Your task to perform on an android device: Clear all items from cart on newegg. Add "usb-b" to the cart on newegg Image 0: 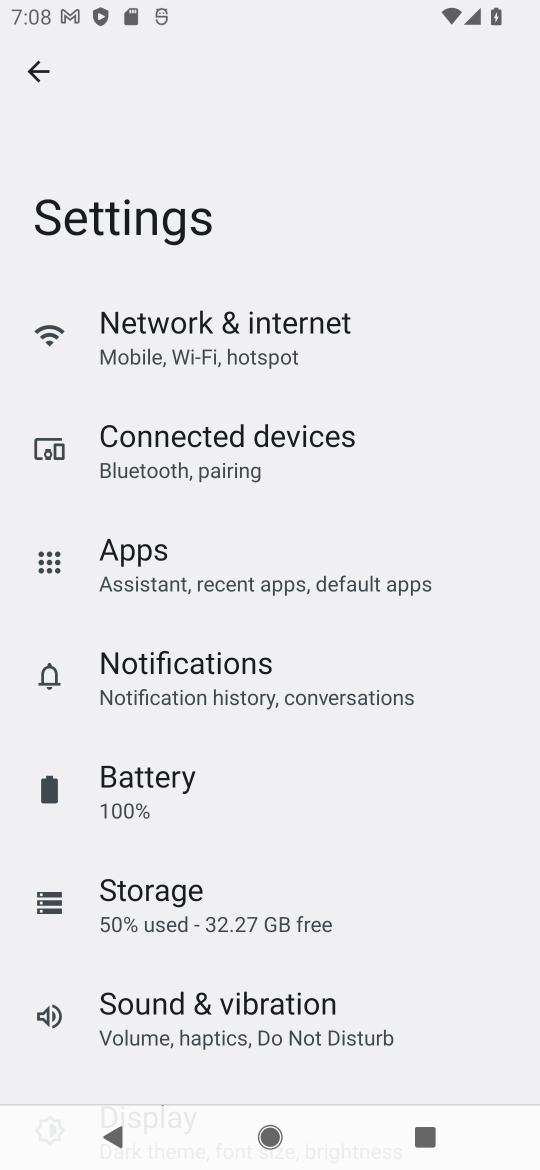
Step 0: press home button
Your task to perform on an android device: Clear all items from cart on newegg. Add "usb-b" to the cart on newegg Image 1: 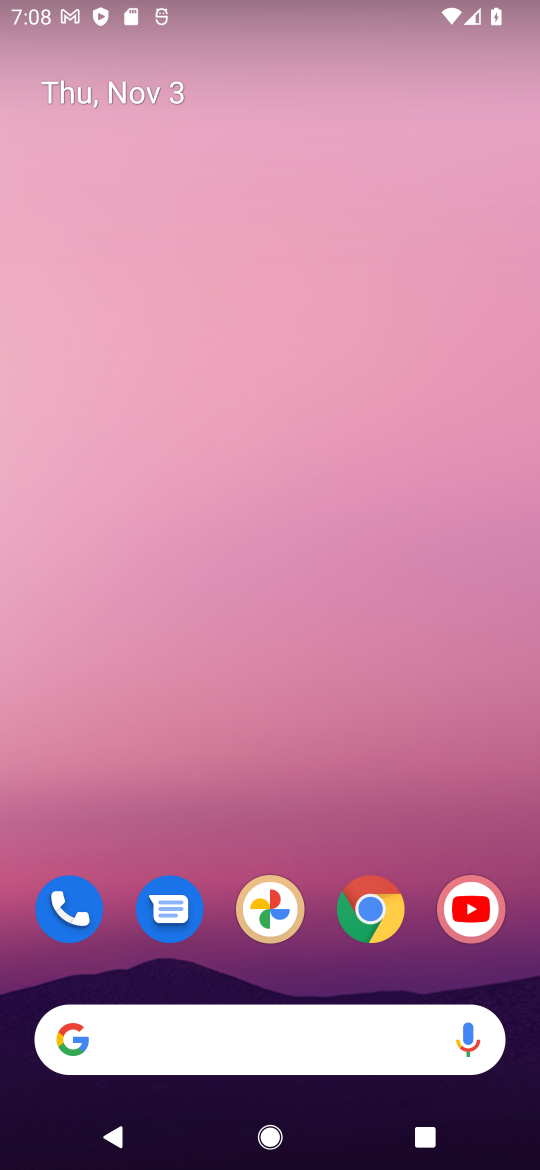
Step 1: drag from (255, 817) to (259, 290)
Your task to perform on an android device: Clear all items from cart on newegg. Add "usb-b" to the cart on newegg Image 2: 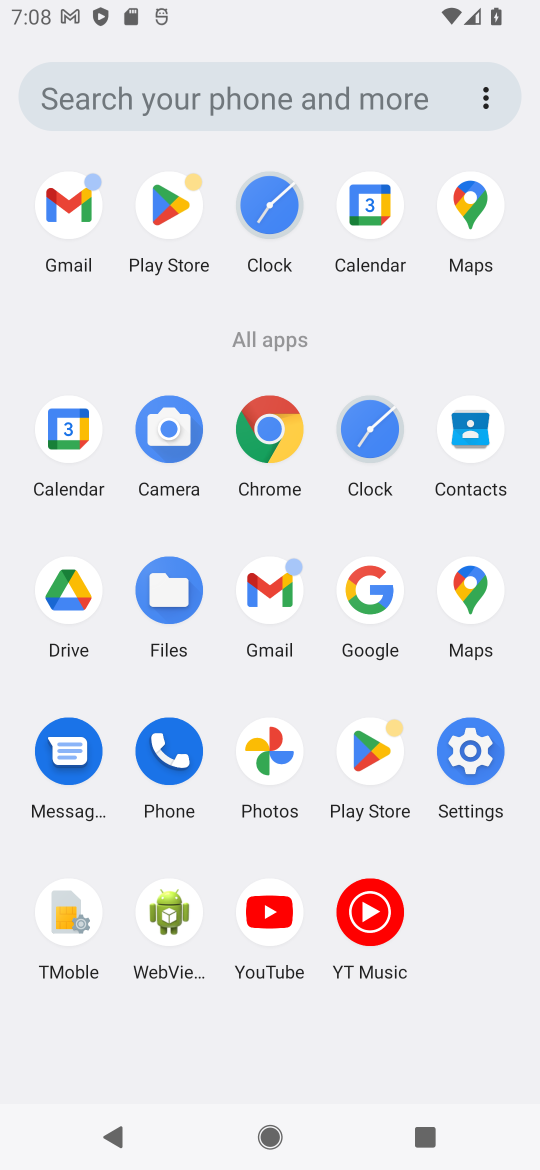
Step 2: click (360, 577)
Your task to perform on an android device: Clear all items from cart on newegg. Add "usb-b" to the cart on newegg Image 3: 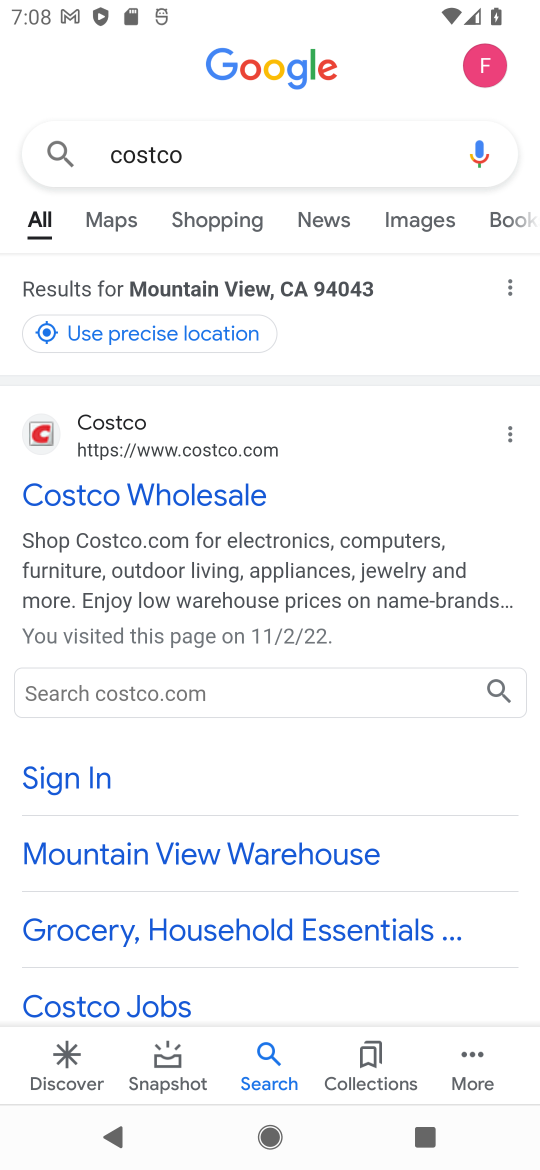
Step 3: click (265, 142)
Your task to perform on an android device: Clear all items from cart on newegg. Add "usb-b" to the cart on newegg Image 4: 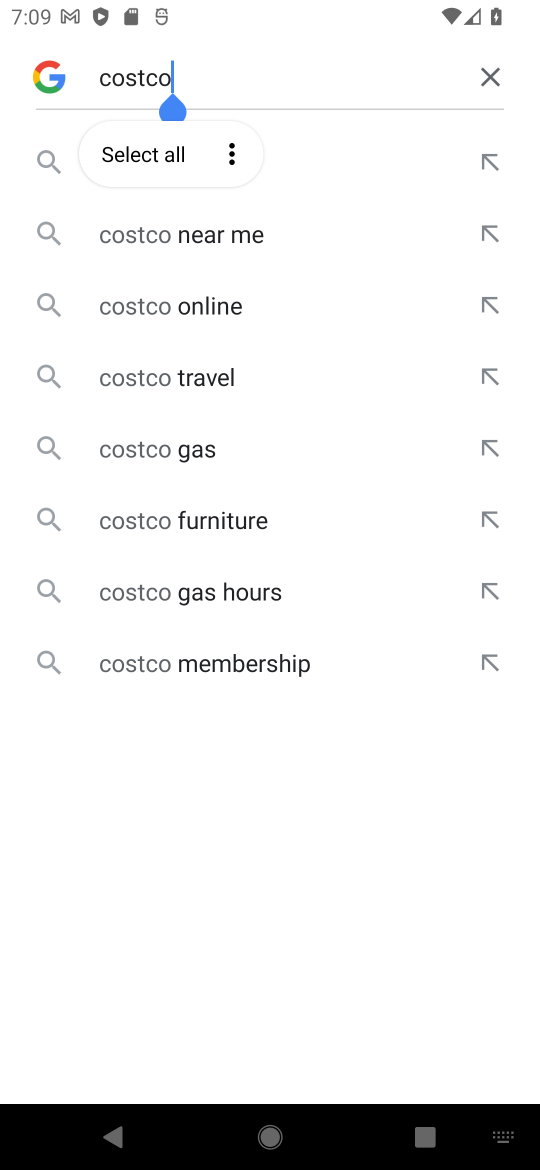
Step 4: click (507, 59)
Your task to perform on an android device: Clear all items from cart on newegg. Add "usb-b" to the cart on newegg Image 5: 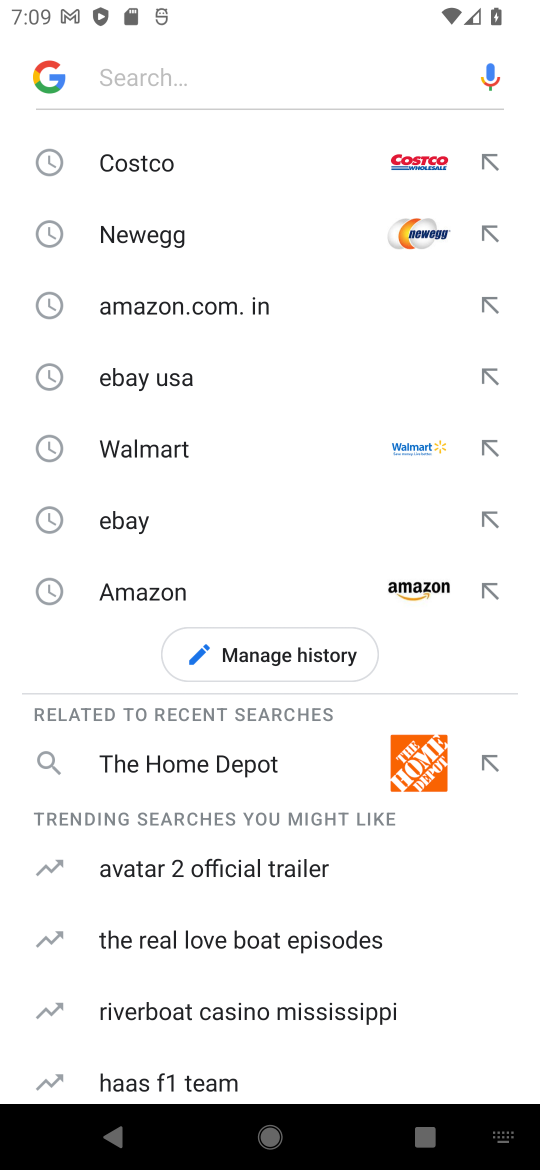
Step 5: click (215, 63)
Your task to perform on an android device: Clear all items from cart on newegg. Add "usb-b" to the cart on newegg Image 6: 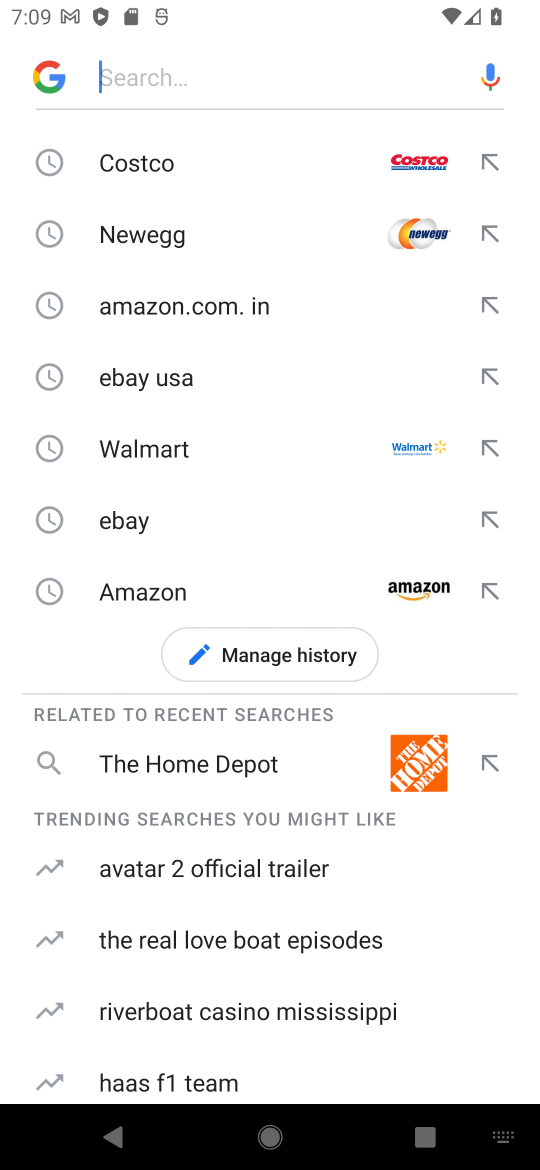
Step 6: click (215, 63)
Your task to perform on an android device: Clear all items from cart on newegg. Add "usb-b" to the cart on newegg Image 7: 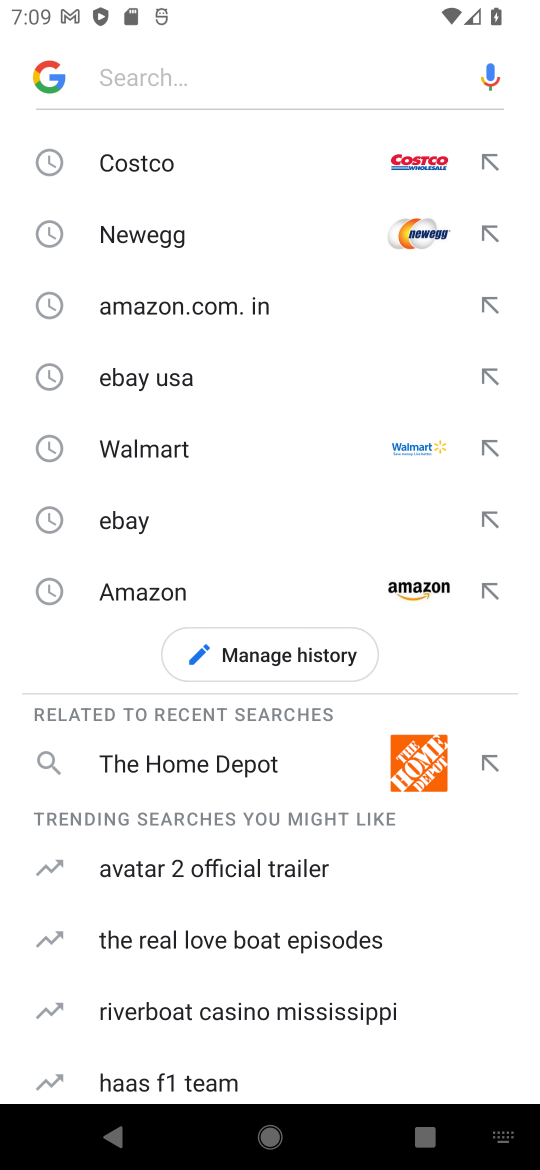
Step 7: type "newegg "
Your task to perform on an android device: Clear all items from cart on newegg. Add "usb-b" to the cart on newegg Image 8: 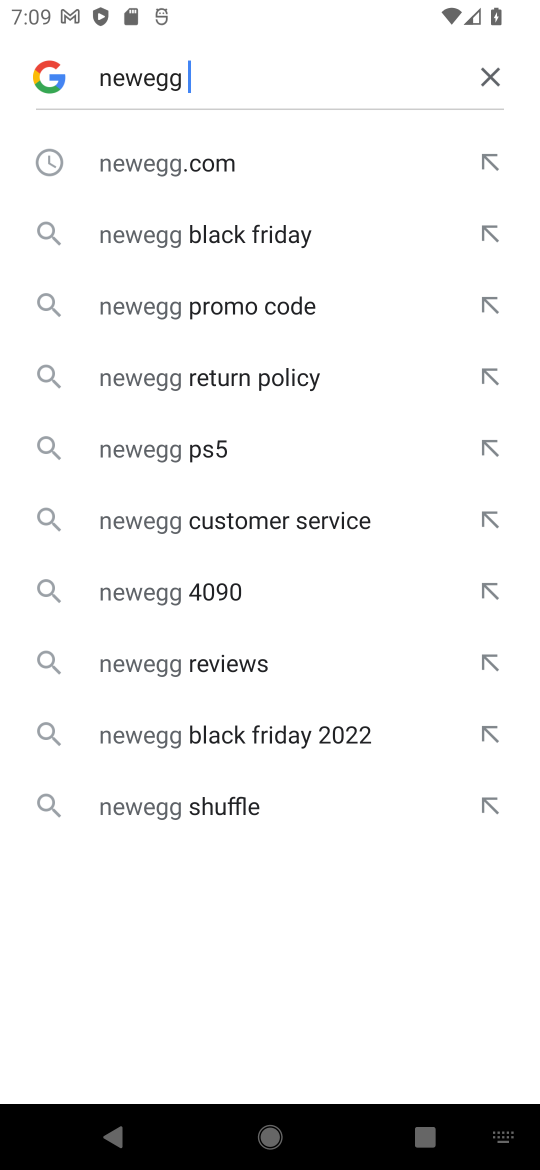
Step 8: click (159, 161)
Your task to perform on an android device: Clear all items from cart on newegg. Add "usb-b" to the cart on newegg Image 9: 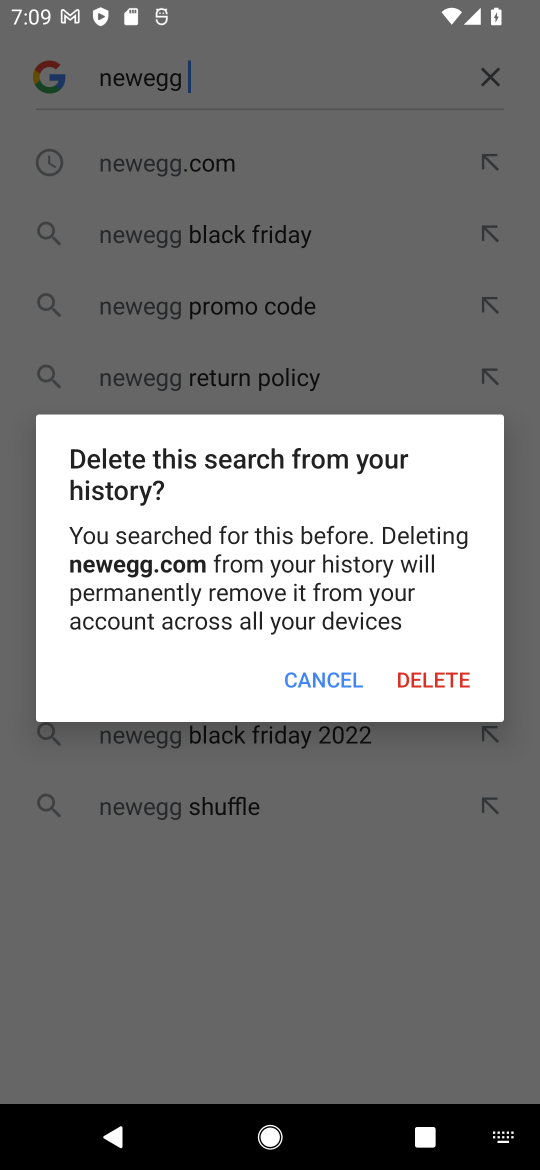
Step 9: click (302, 674)
Your task to perform on an android device: Clear all items from cart on newegg. Add "usb-b" to the cart on newegg Image 10: 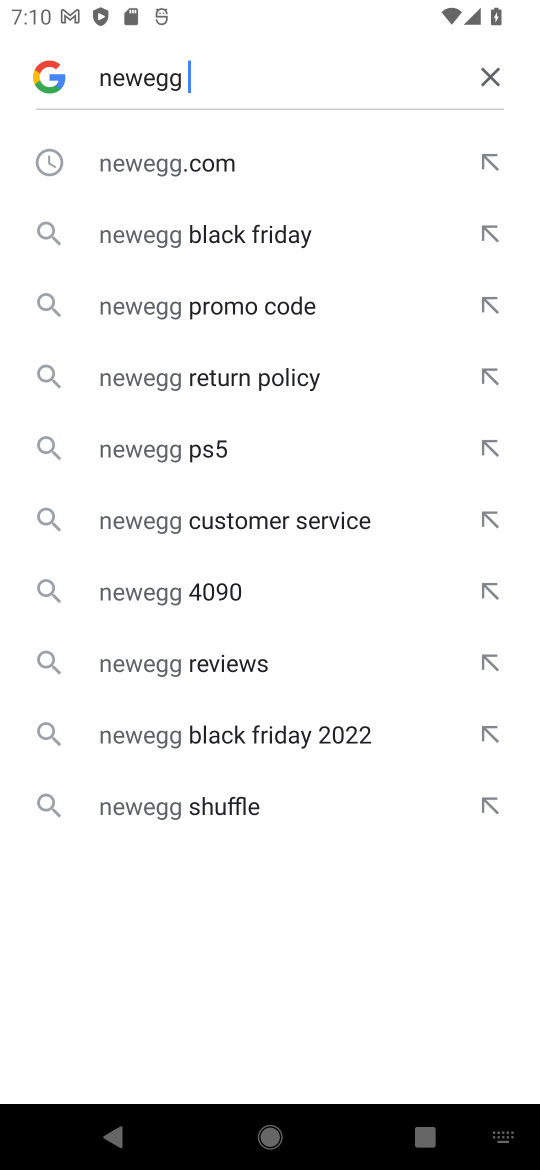
Step 10: click (497, 72)
Your task to perform on an android device: Clear all items from cart on newegg. Add "usb-b" to the cart on newegg Image 11: 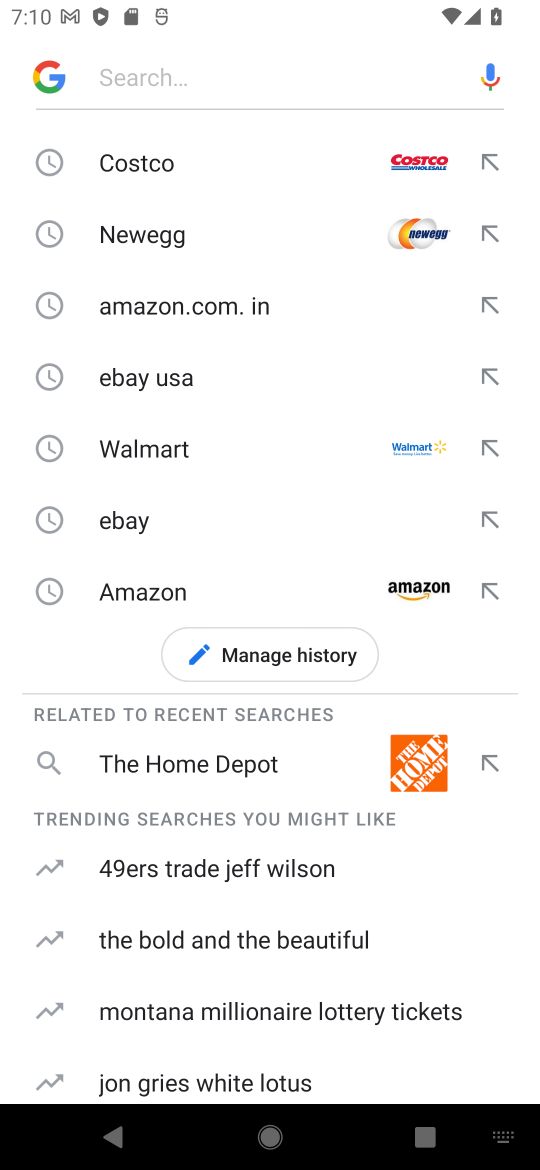
Step 11: click (205, 74)
Your task to perform on an android device: Clear all items from cart on newegg. Add "usb-b" to the cart on newegg Image 12: 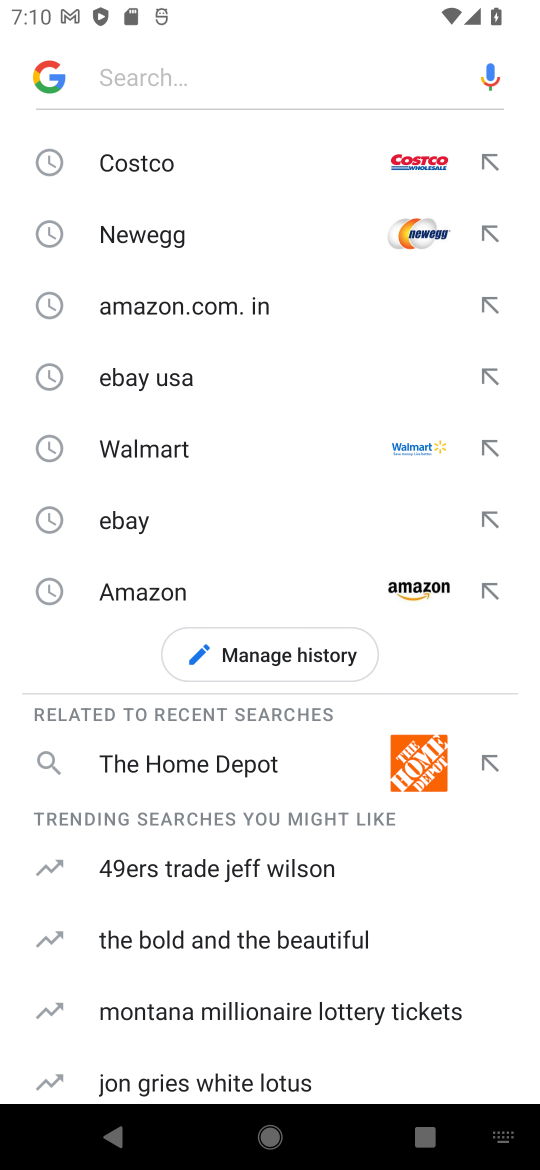
Step 12: type "newegg "
Your task to perform on an android device: Clear all items from cart on newegg. Add "usb-b" to the cart on newegg Image 13: 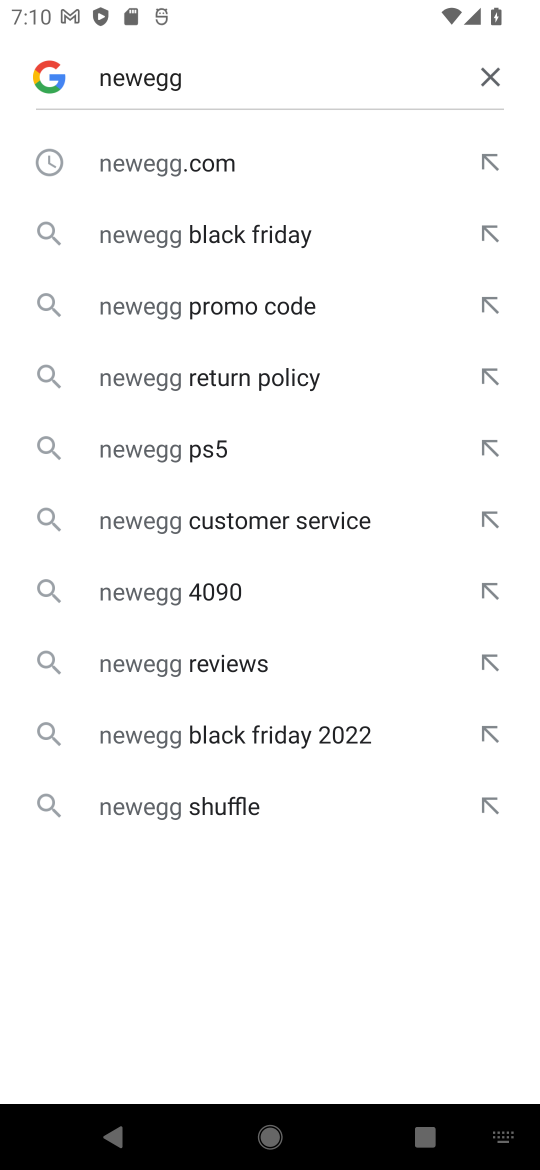
Step 13: click (170, 170)
Your task to perform on an android device: Clear all items from cart on newegg. Add "usb-b" to the cart on newegg Image 14: 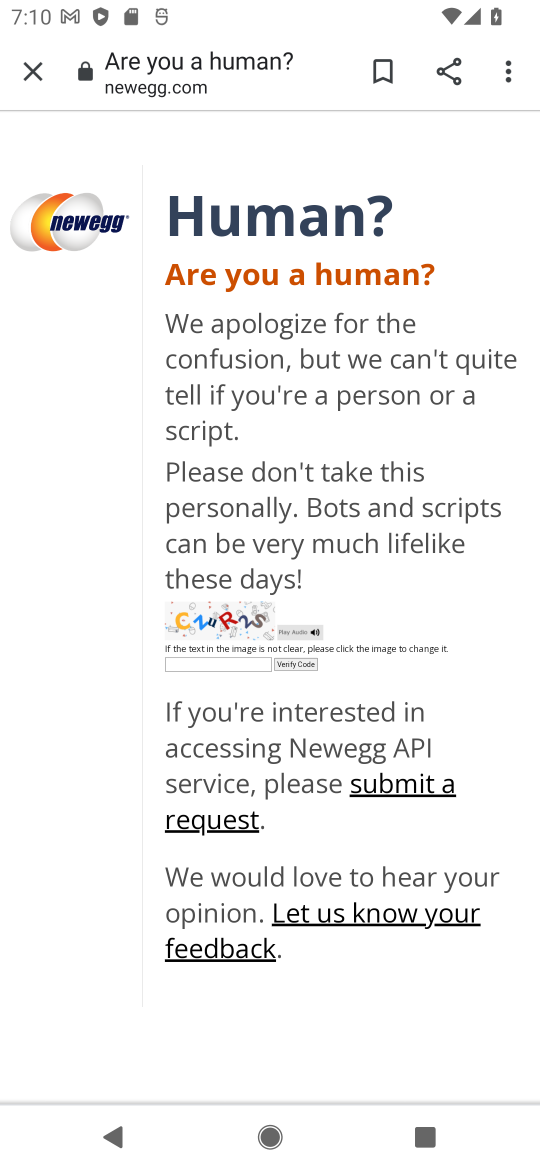
Step 14: click (25, 62)
Your task to perform on an android device: Clear all items from cart on newegg. Add "usb-b" to the cart on newegg Image 15: 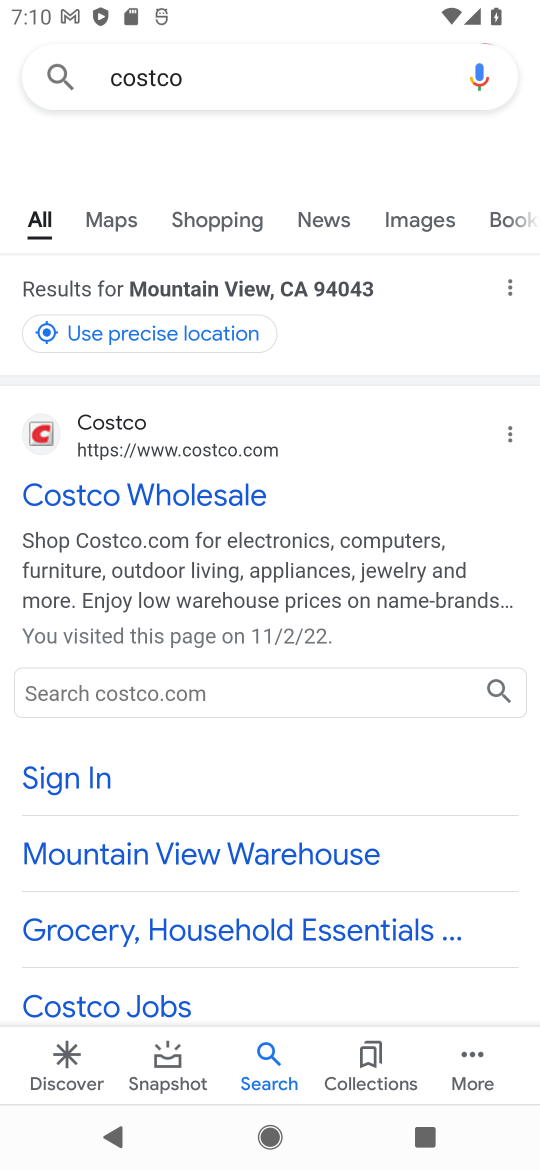
Step 15: click (269, 49)
Your task to perform on an android device: Clear all items from cart on newegg. Add "usb-b" to the cart on newegg Image 16: 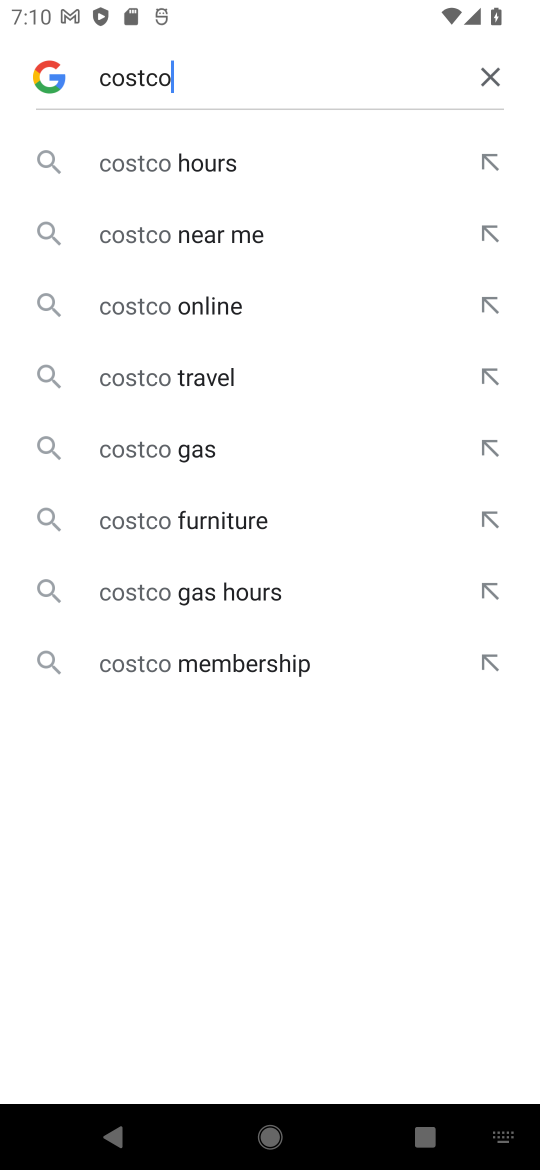
Step 16: click (469, 78)
Your task to perform on an android device: Clear all items from cart on newegg. Add "usb-b" to the cart on newegg Image 17: 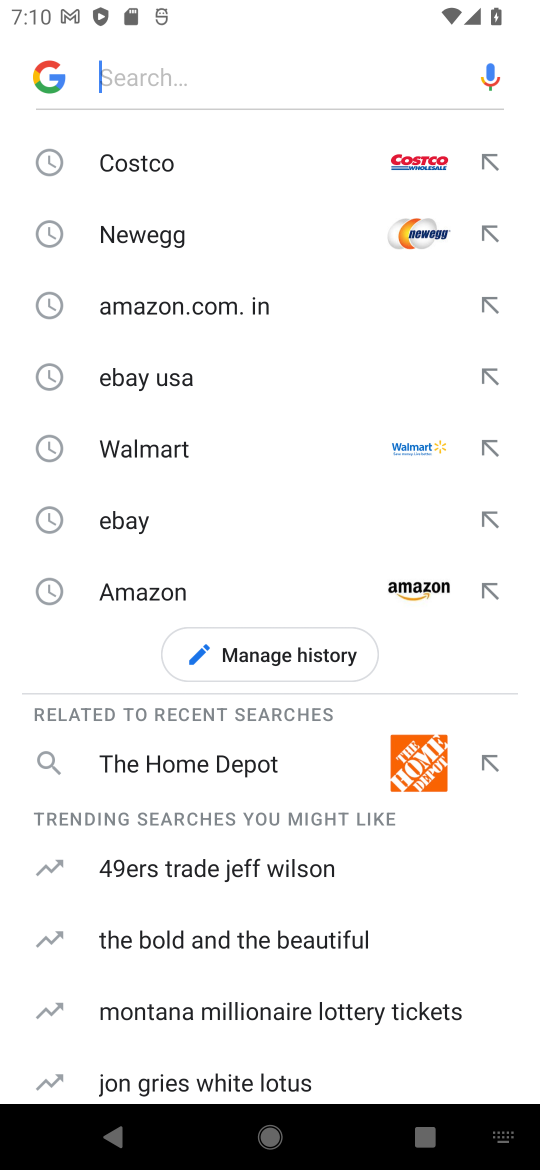
Step 17: click (163, 73)
Your task to perform on an android device: Clear all items from cart on newegg. Add "usb-b" to the cart on newegg Image 18: 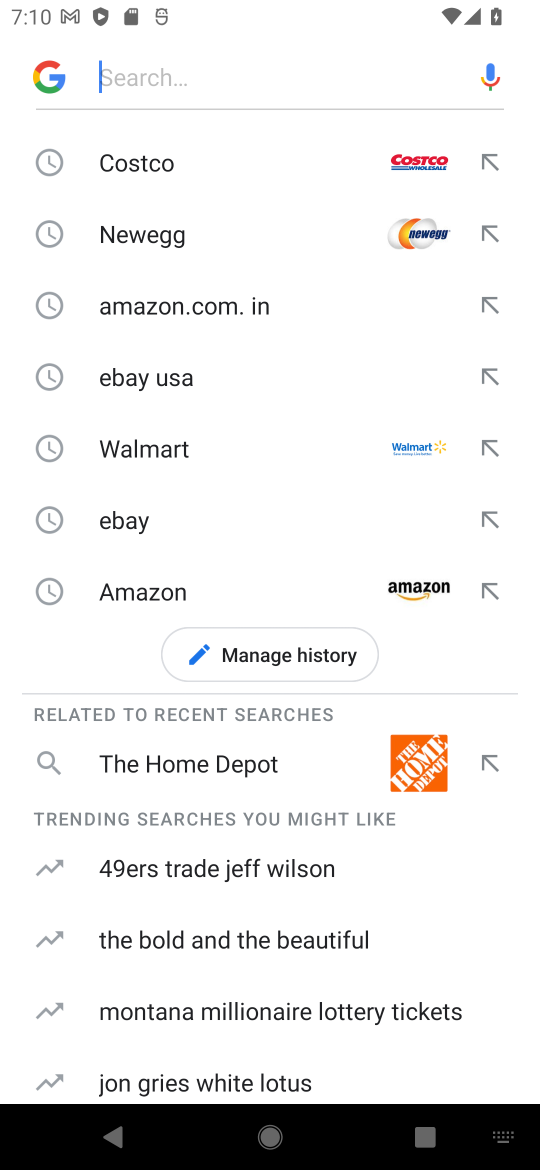
Step 18: type "newegg "
Your task to perform on an android device: Clear all items from cart on newegg. Add "usb-b" to the cart on newegg Image 19: 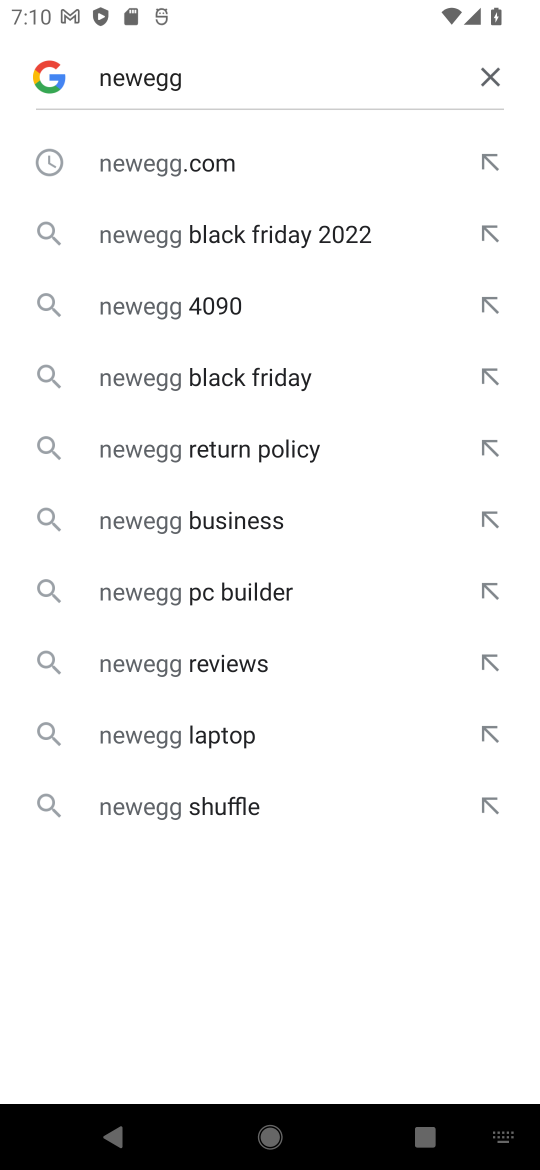
Step 19: click (227, 167)
Your task to perform on an android device: Clear all items from cart on newegg. Add "usb-b" to the cart on newegg Image 20: 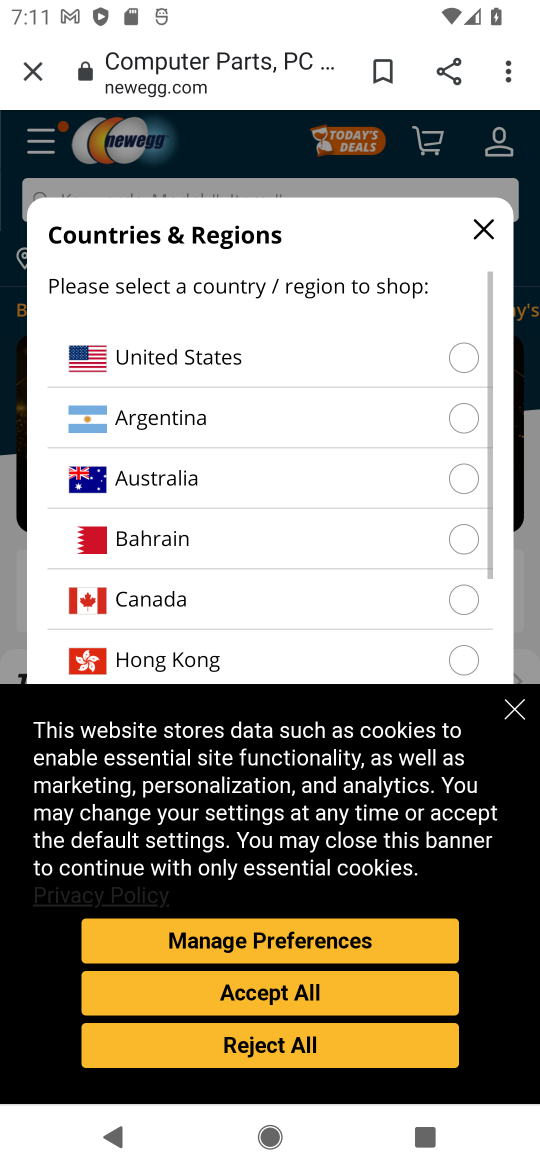
Step 20: click (483, 220)
Your task to perform on an android device: Clear all items from cart on newegg. Add "usb-b" to the cart on newegg Image 21: 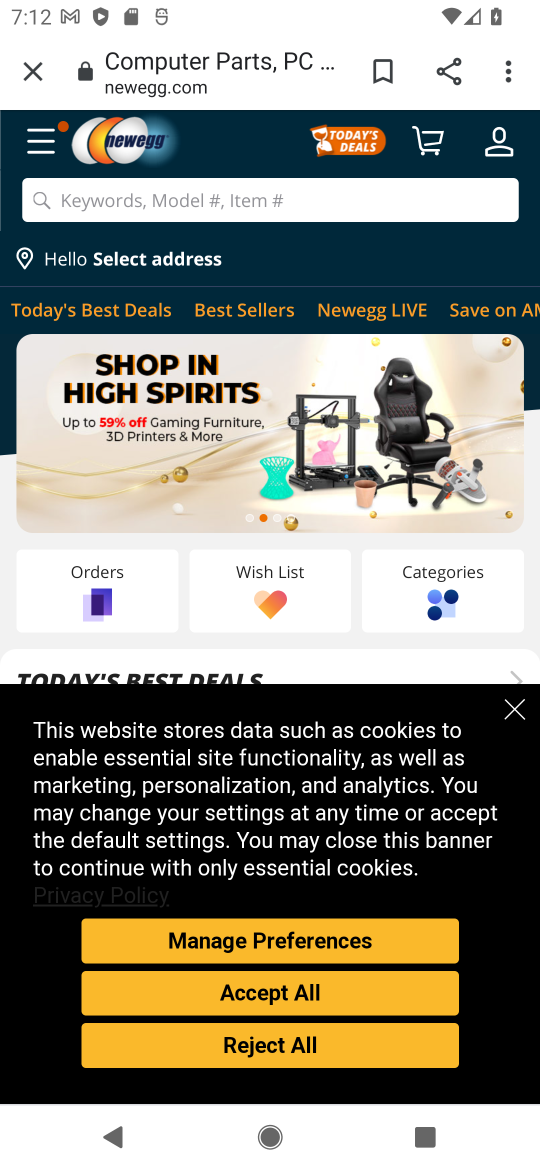
Step 21: click (502, 700)
Your task to perform on an android device: Clear all items from cart on newegg. Add "usb-b" to the cart on newegg Image 22: 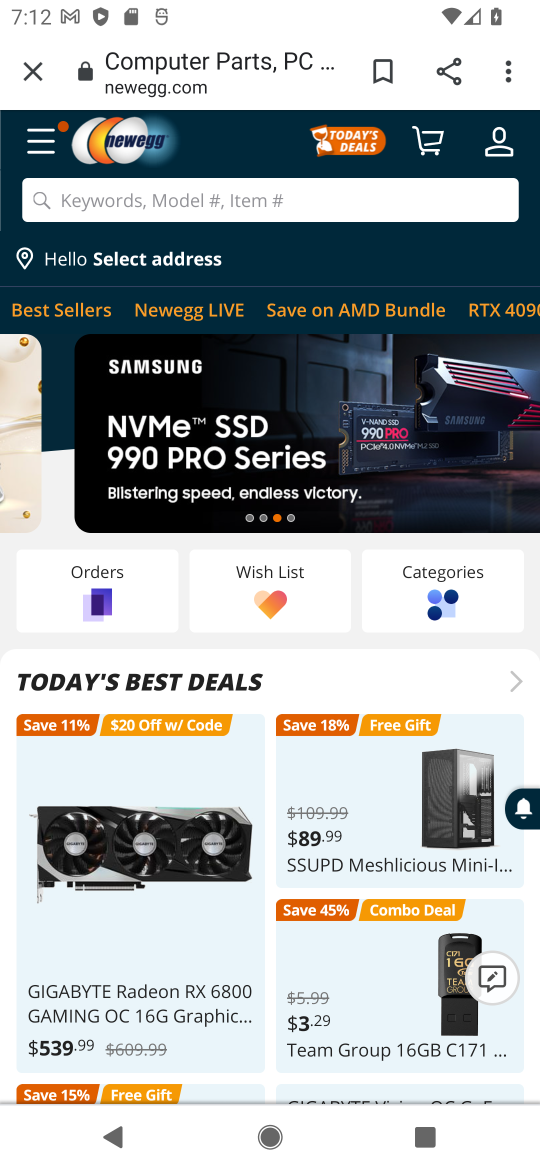
Step 22: click (238, 195)
Your task to perform on an android device: Clear all items from cart on newegg. Add "usb-b" to the cart on newegg Image 23: 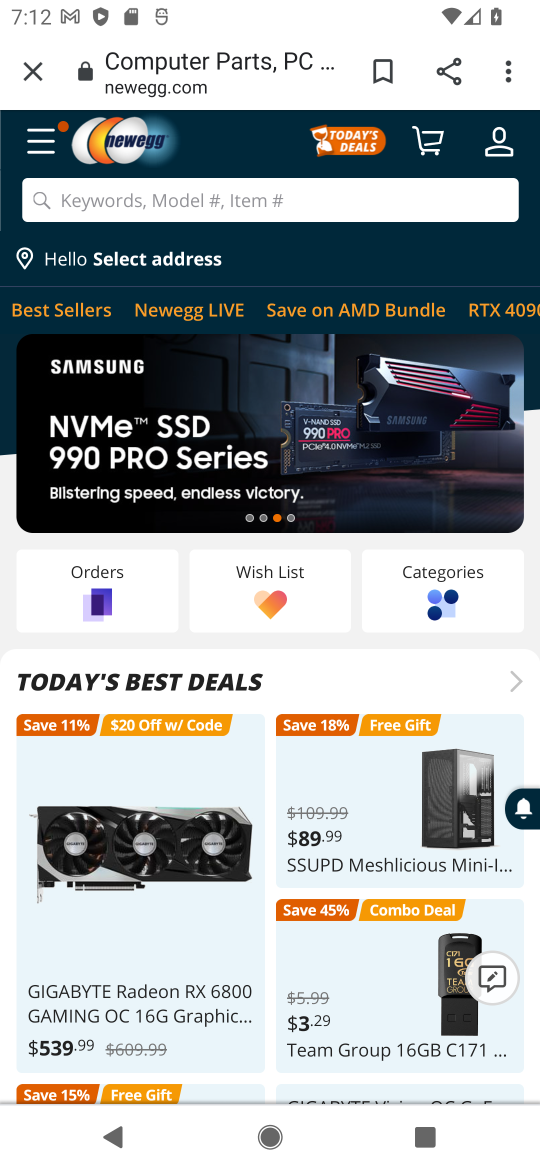
Step 23: click (250, 189)
Your task to perform on an android device: Clear all items from cart on newegg. Add "usb-b" to the cart on newegg Image 24: 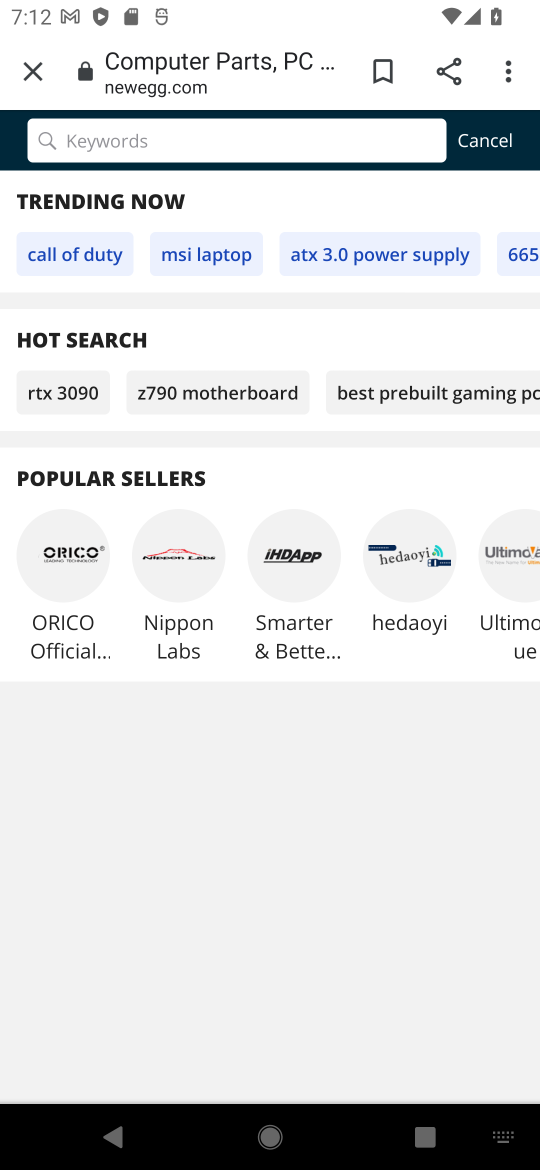
Step 24: type "usb-b "
Your task to perform on an android device: Clear all items from cart on newegg. Add "usb-b" to the cart on newegg Image 25: 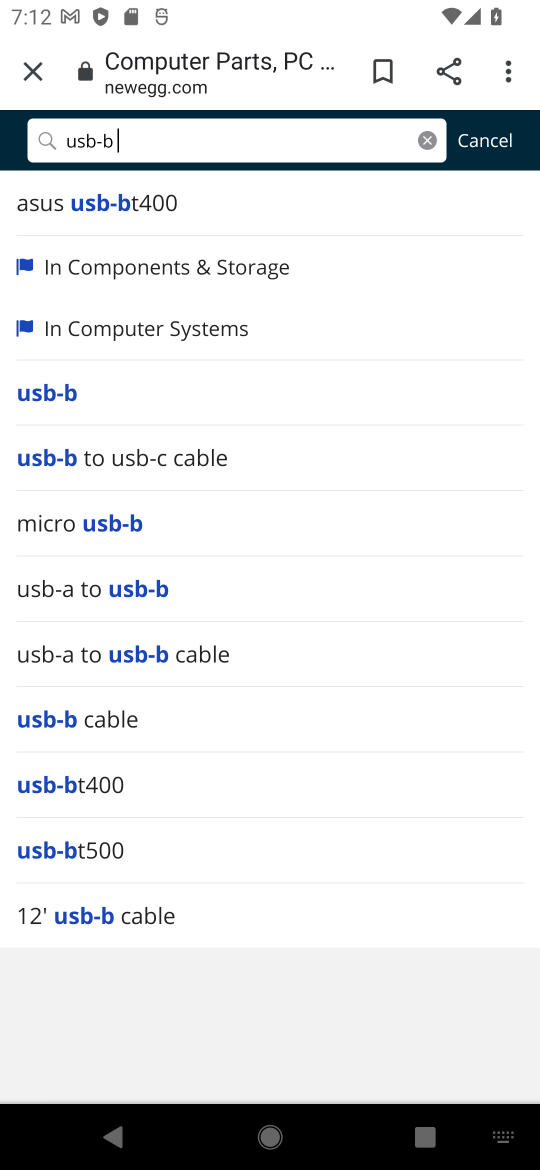
Step 25: click (53, 395)
Your task to perform on an android device: Clear all items from cart on newegg. Add "usb-b" to the cart on newegg Image 26: 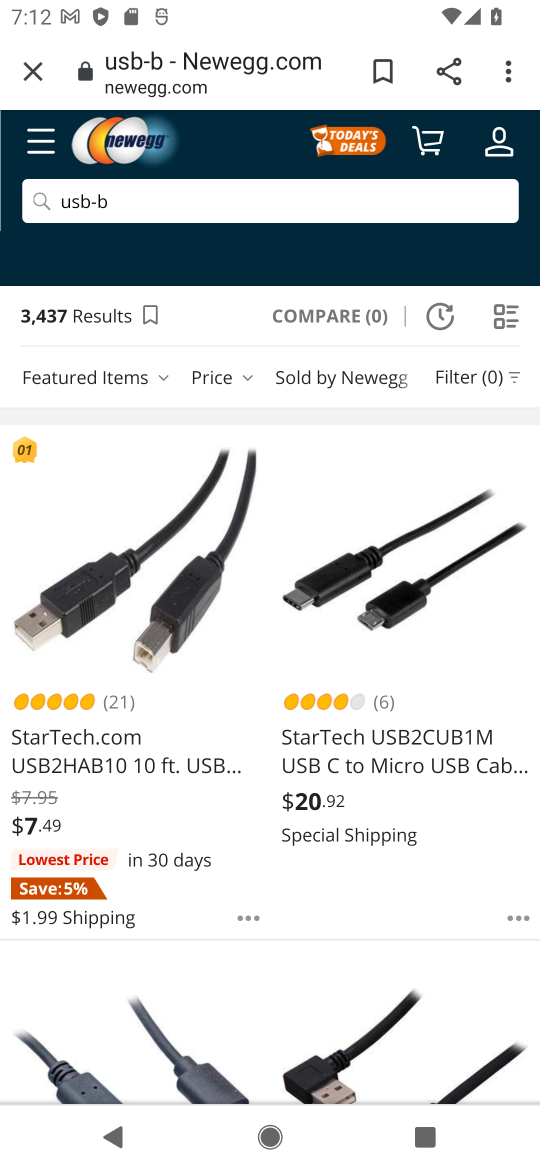
Step 26: click (112, 732)
Your task to perform on an android device: Clear all items from cart on newegg. Add "usb-b" to the cart on newegg Image 27: 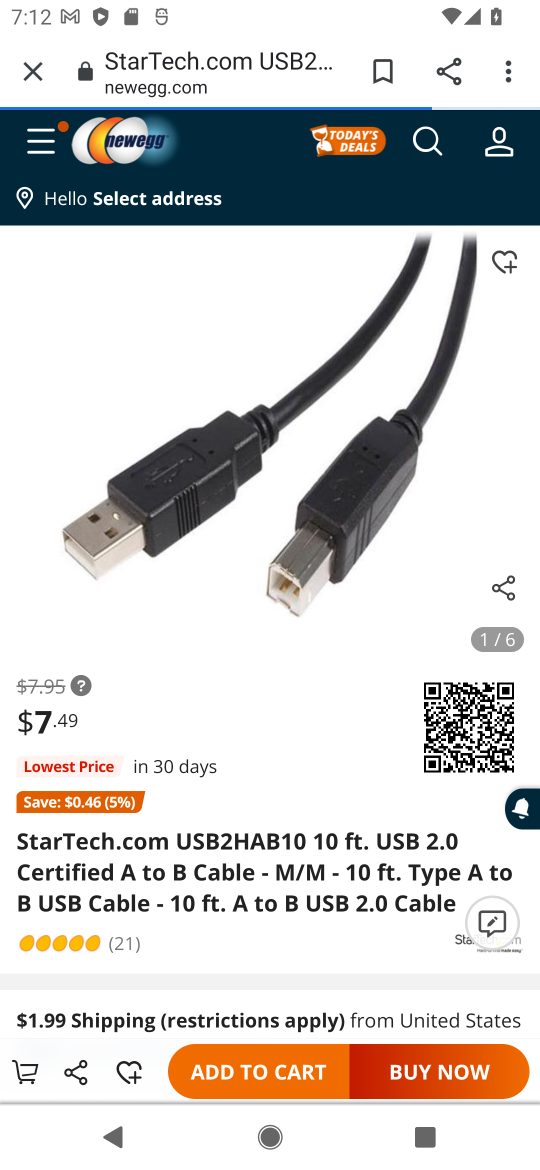
Step 27: click (273, 1061)
Your task to perform on an android device: Clear all items from cart on newegg. Add "usb-b" to the cart on newegg Image 28: 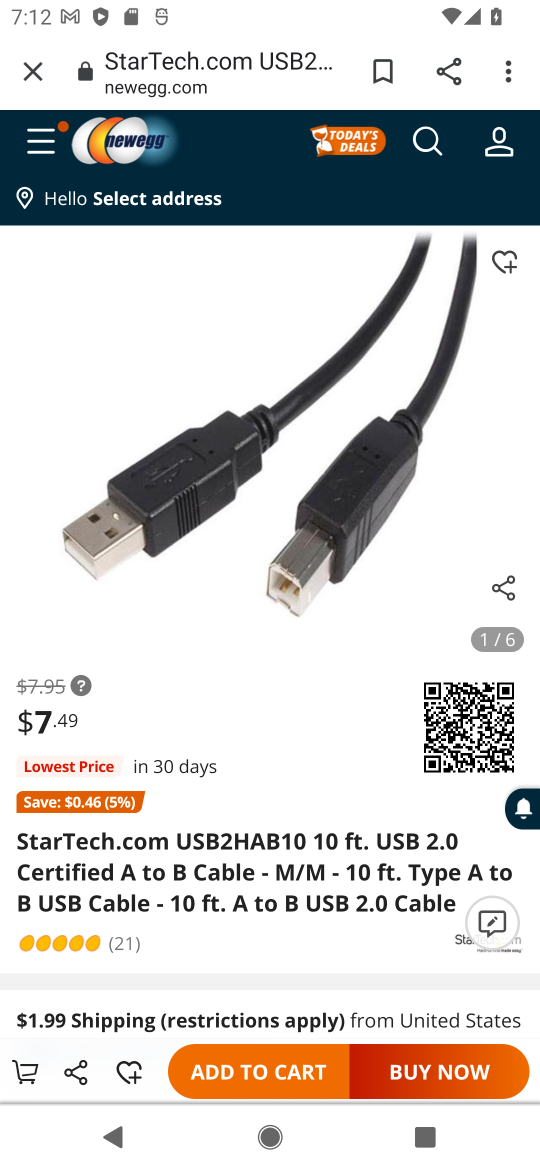
Step 28: click (273, 1061)
Your task to perform on an android device: Clear all items from cart on newegg. Add "usb-b" to the cart on newegg Image 29: 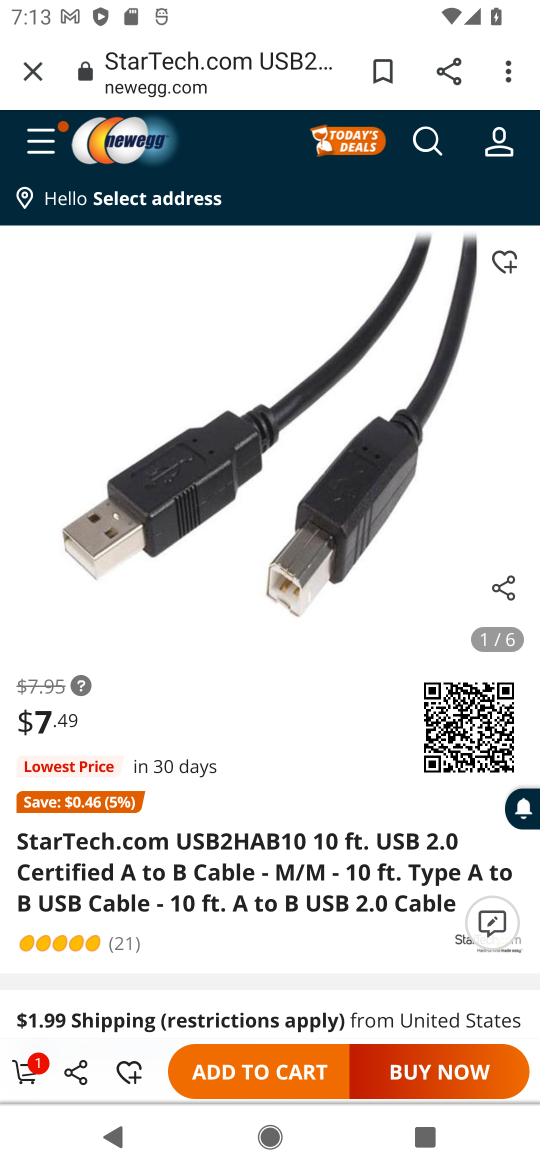
Step 29: task complete